Your task to perform on an android device: set the timer Image 0: 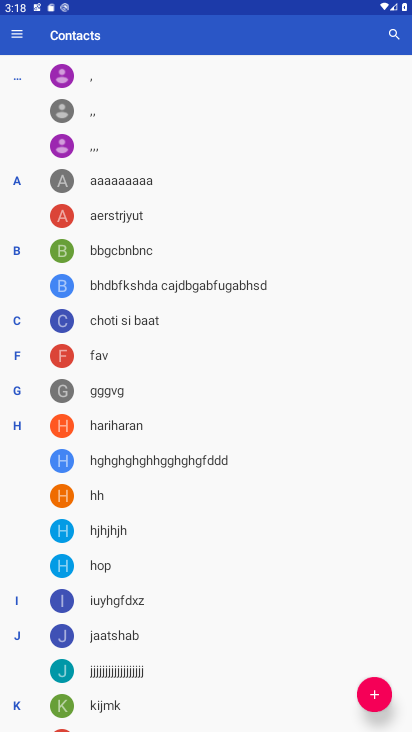
Step 0: press home button
Your task to perform on an android device: set the timer Image 1: 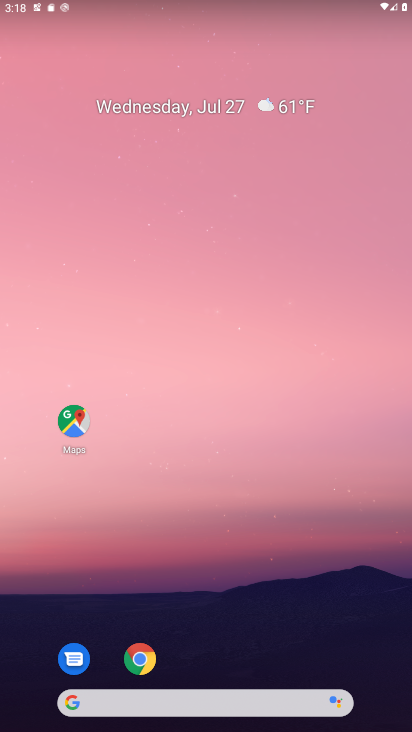
Step 1: drag from (193, 697) to (149, 38)
Your task to perform on an android device: set the timer Image 2: 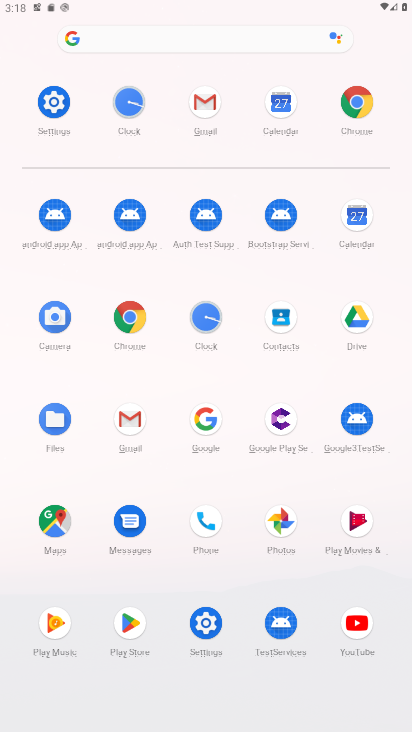
Step 2: click (200, 327)
Your task to perform on an android device: set the timer Image 3: 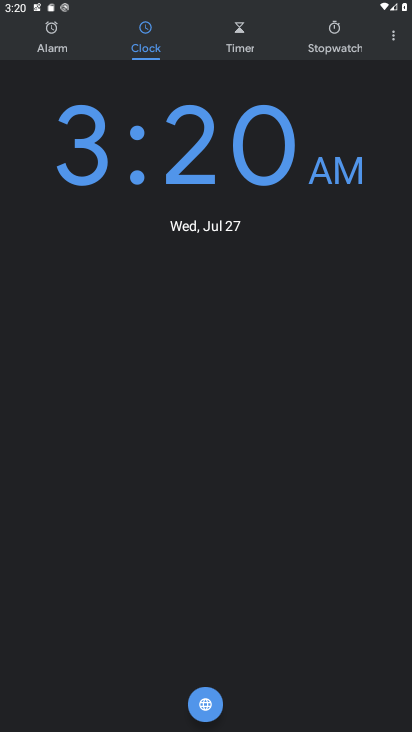
Step 3: click (235, 38)
Your task to perform on an android device: set the timer Image 4: 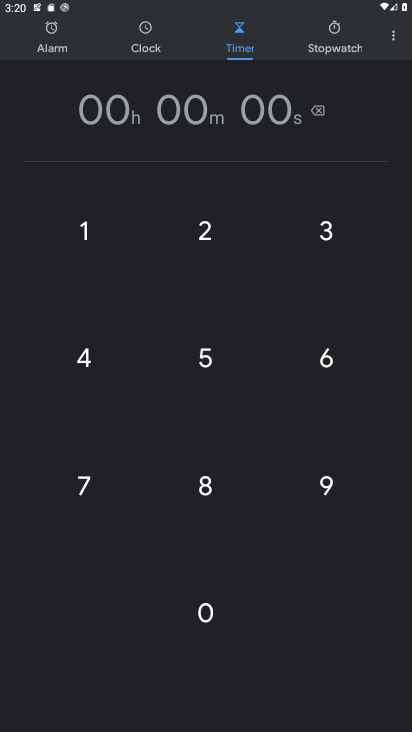
Step 4: click (86, 350)
Your task to perform on an android device: set the timer Image 5: 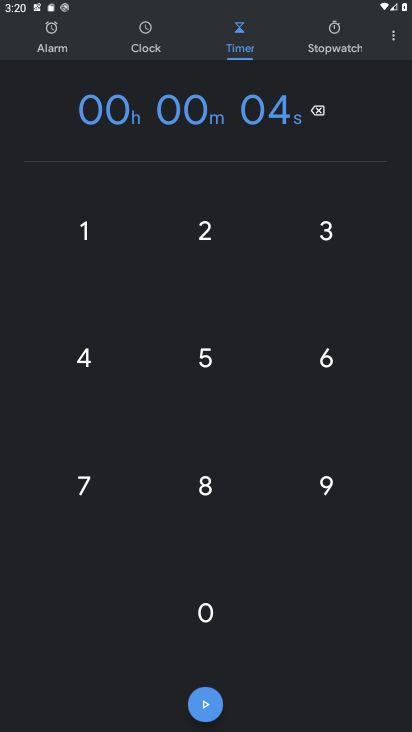
Step 5: click (189, 366)
Your task to perform on an android device: set the timer Image 6: 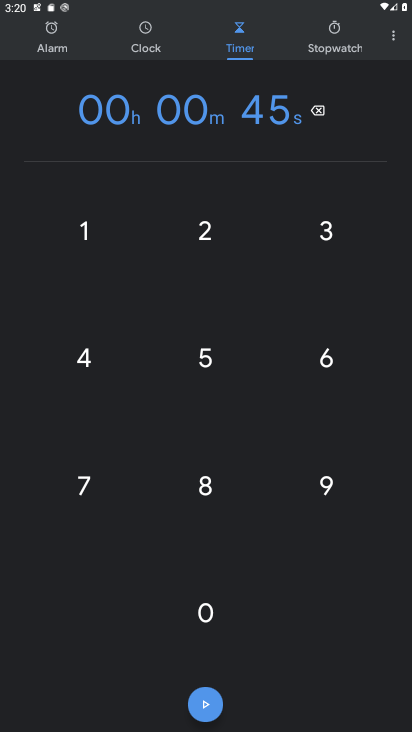
Step 6: click (327, 366)
Your task to perform on an android device: set the timer Image 7: 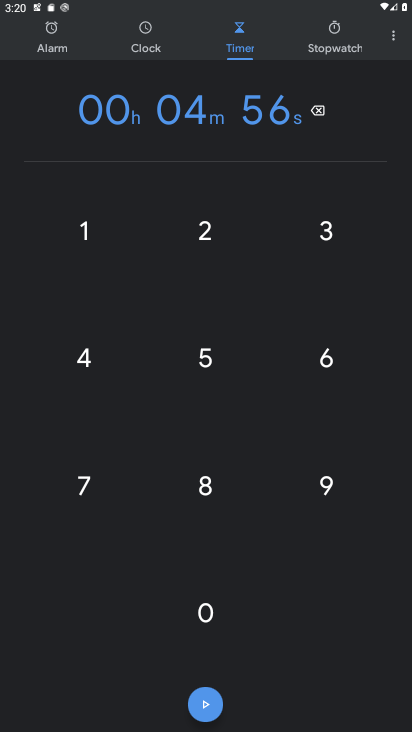
Step 7: click (328, 469)
Your task to perform on an android device: set the timer Image 8: 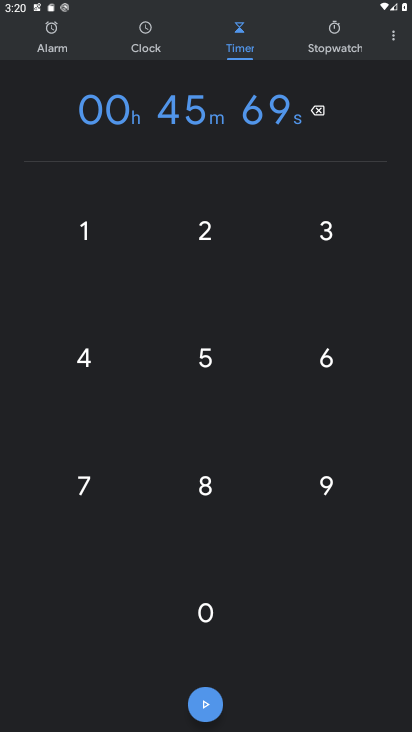
Step 8: click (210, 478)
Your task to perform on an android device: set the timer Image 9: 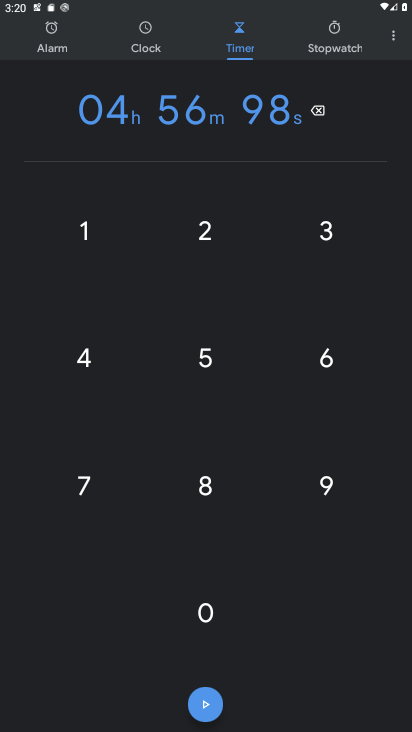
Step 9: click (204, 701)
Your task to perform on an android device: set the timer Image 10: 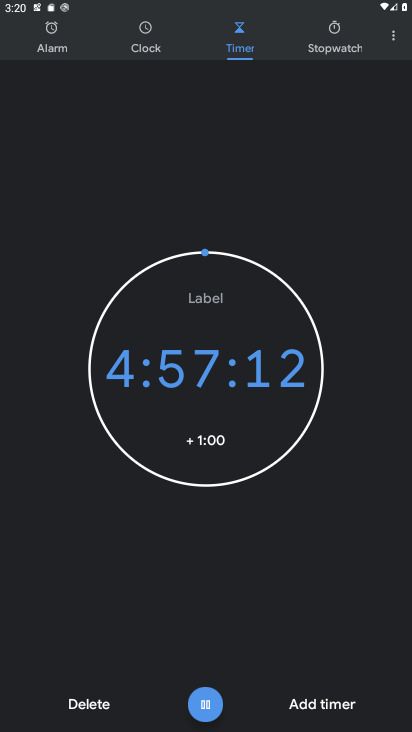
Step 10: task complete